Your task to perform on an android device: Open Google Chrome and click the shortcut for Amazon.com Image 0: 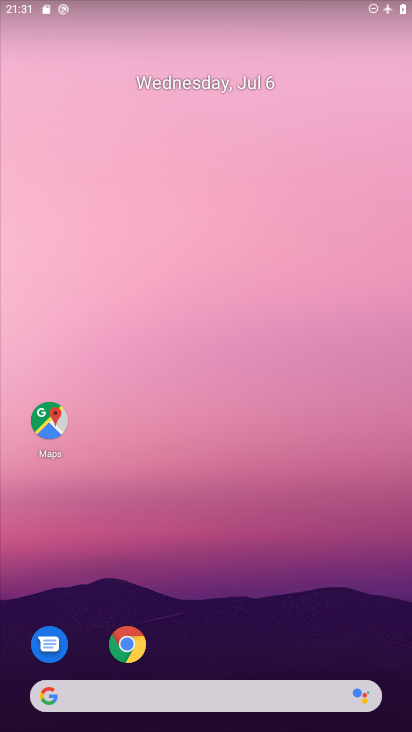
Step 0: click (126, 647)
Your task to perform on an android device: Open Google Chrome and click the shortcut for Amazon.com Image 1: 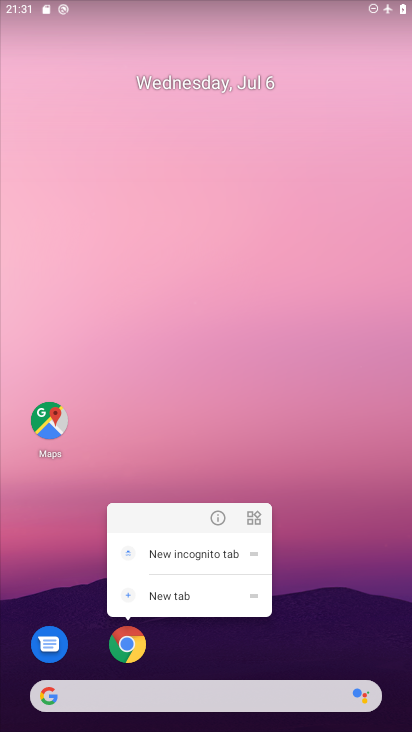
Step 1: click (256, 348)
Your task to perform on an android device: Open Google Chrome and click the shortcut for Amazon.com Image 2: 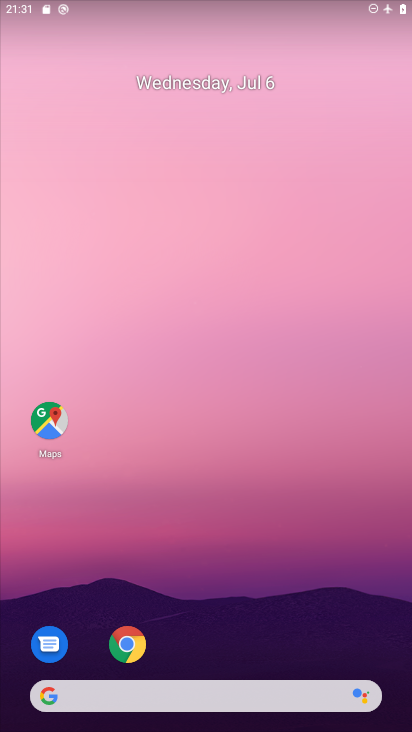
Step 2: click (121, 659)
Your task to perform on an android device: Open Google Chrome and click the shortcut for Amazon.com Image 3: 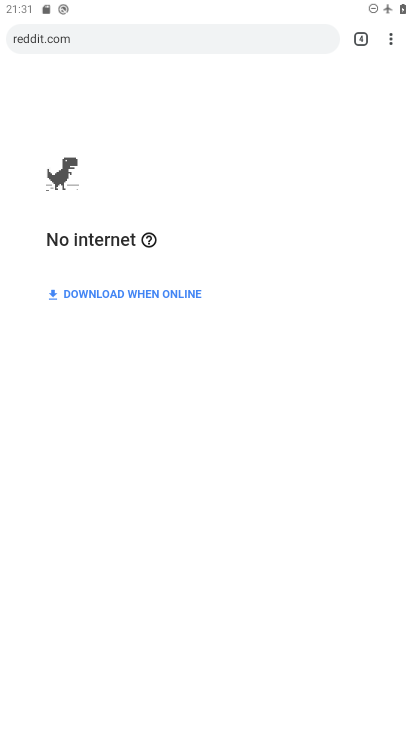
Step 3: click (359, 31)
Your task to perform on an android device: Open Google Chrome and click the shortcut for Amazon.com Image 4: 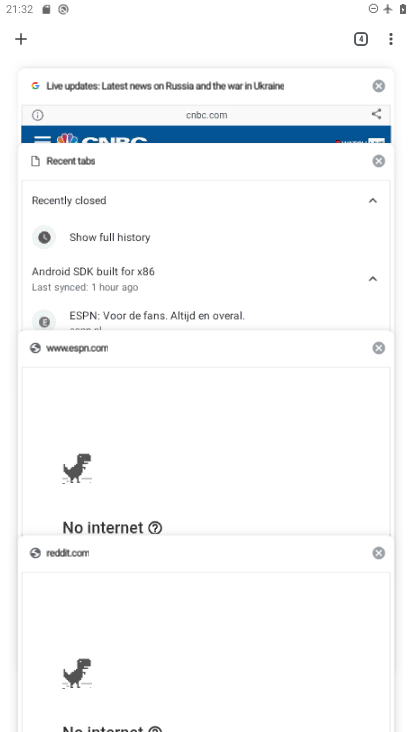
Step 4: click (16, 40)
Your task to perform on an android device: Open Google Chrome and click the shortcut for Amazon.com Image 5: 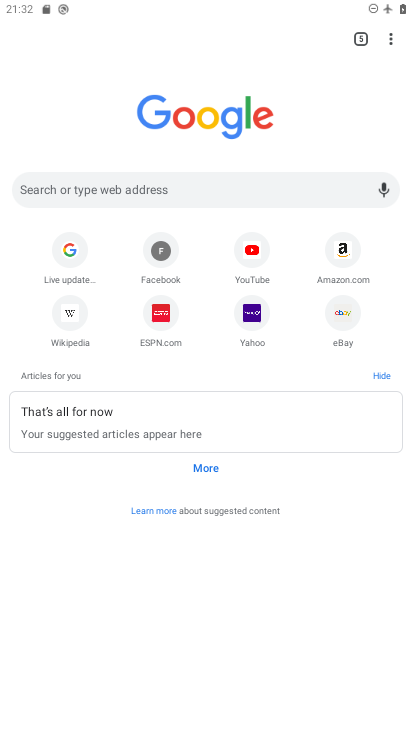
Step 5: click (331, 238)
Your task to perform on an android device: Open Google Chrome and click the shortcut for Amazon.com Image 6: 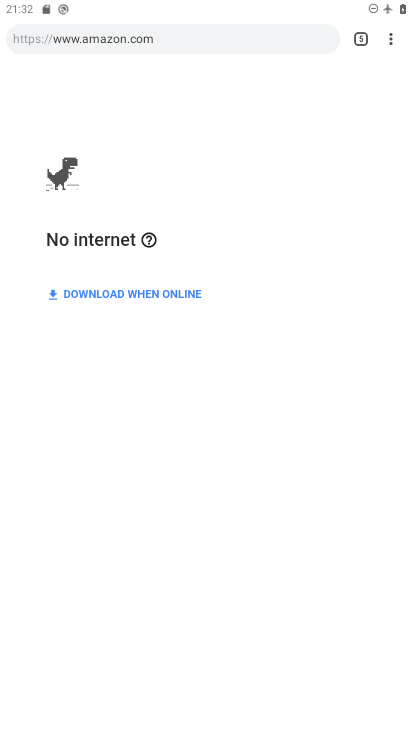
Step 6: task complete